Your task to perform on an android device: Search for the top rated book on goodreads. Image 0: 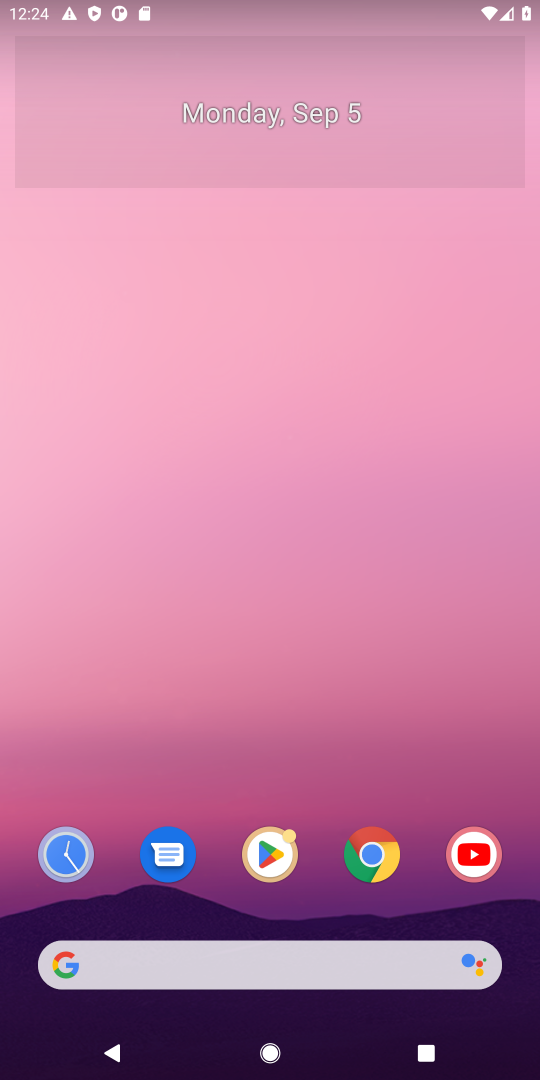
Step 0: click (252, 975)
Your task to perform on an android device: Search for the top rated book on goodreads. Image 1: 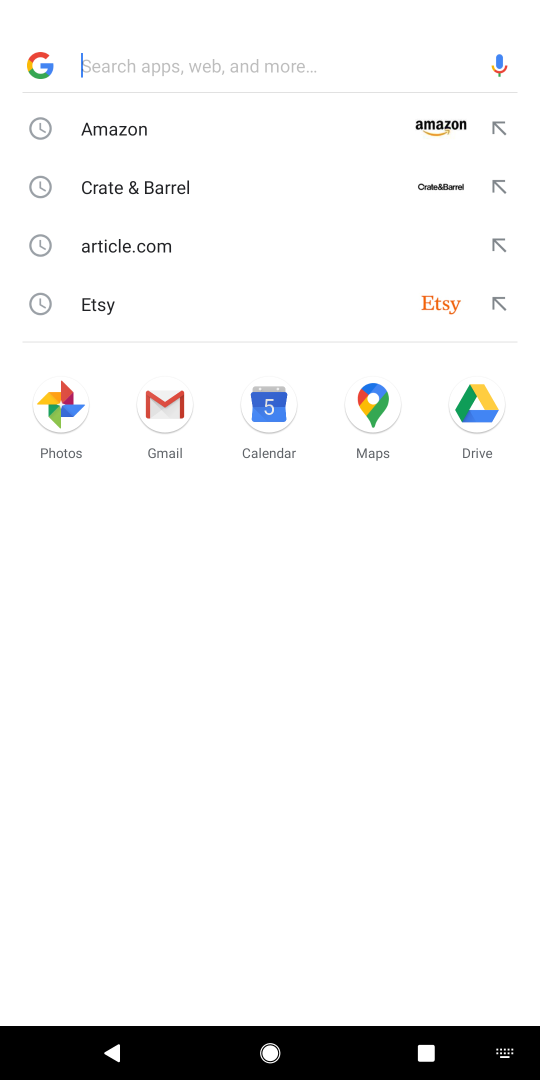
Step 1: type "goodreads"
Your task to perform on an android device: Search for the top rated book on goodreads. Image 2: 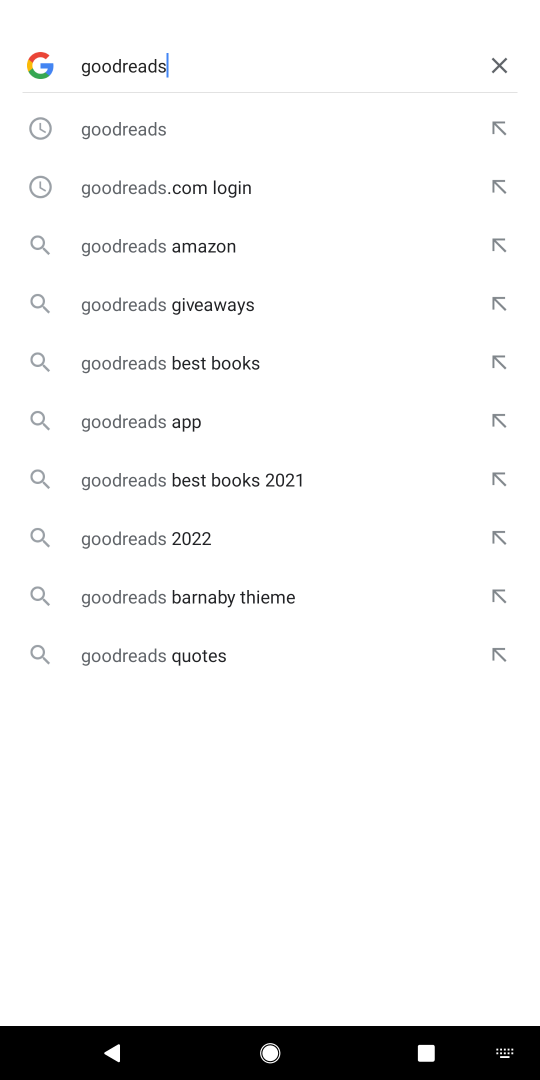
Step 2: press enter
Your task to perform on an android device: Search for the top rated book on goodreads. Image 3: 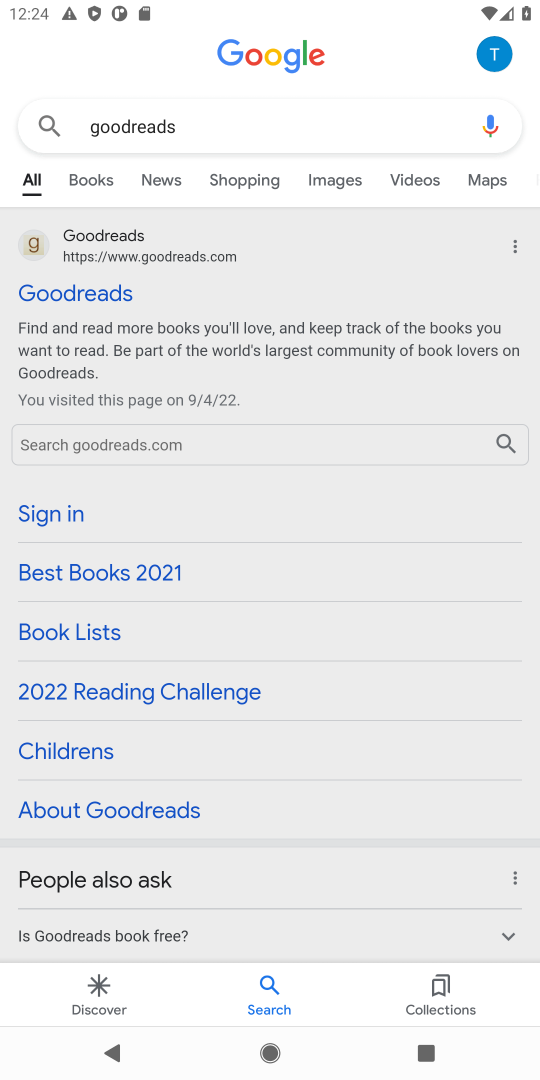
Step 3: click (95, 301)
Your task to perform on an android device: Search for the top rated book on goodreads. Image 4: 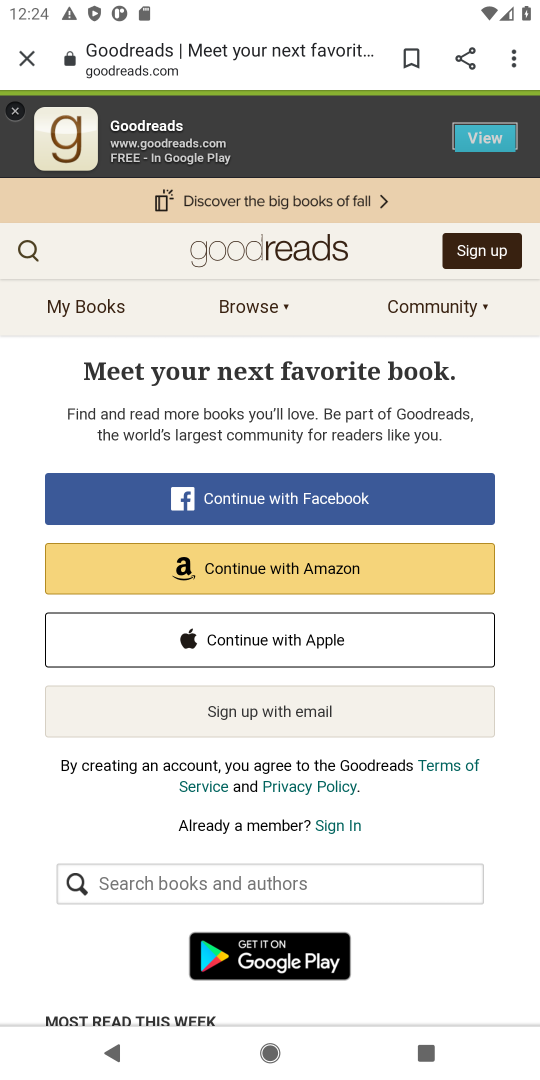
Step 4: click (56, 250)
Your task to perform on an android device: Search for the top rated book on goodreads. Image 5: 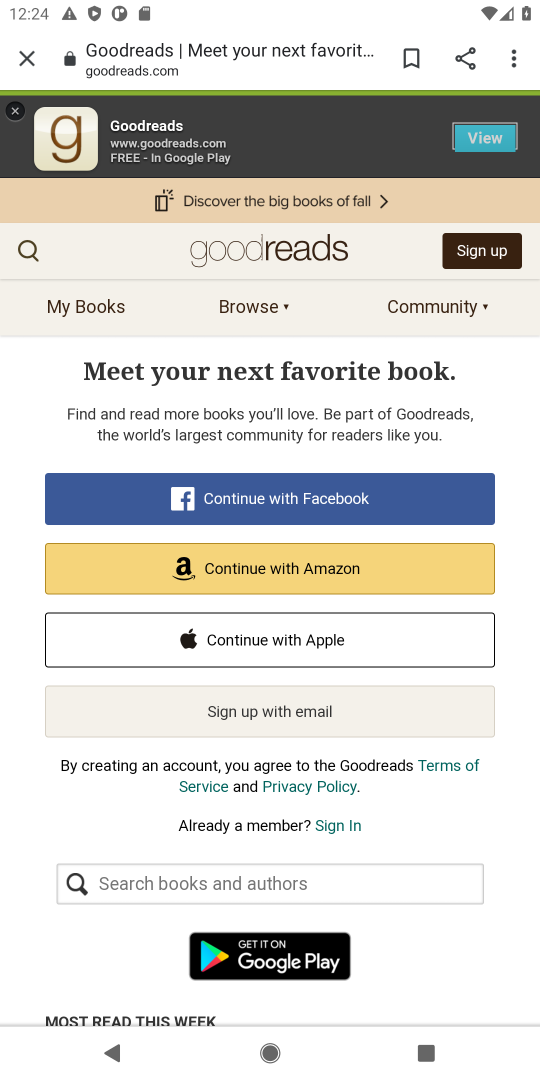
Step 5: click (49, 265)
Your task to perform on an android device: Search for the top rated book on goodreads. Image 6: 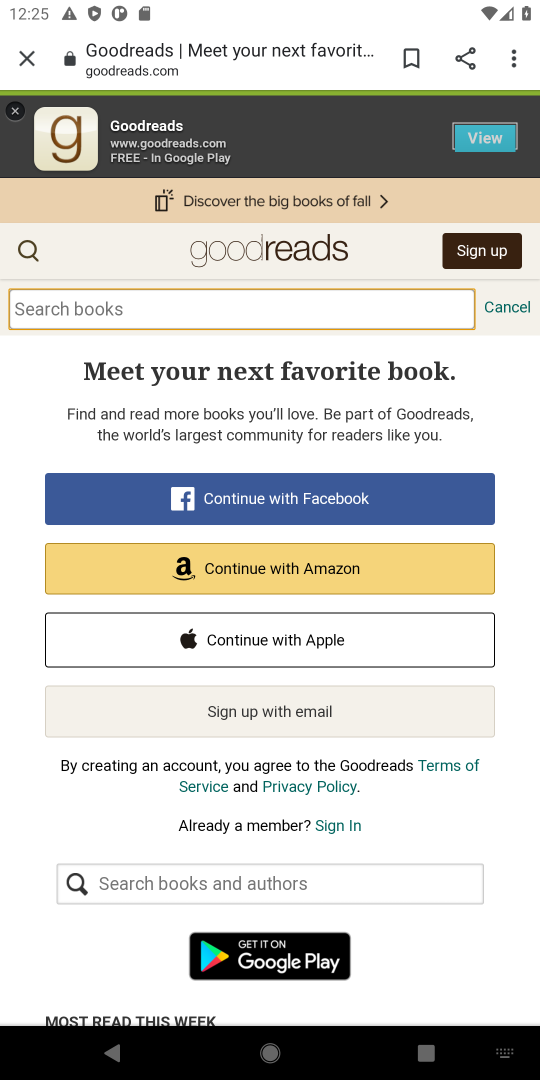
Step 6: press enter
Your task to perform on an android device: Search for the top rated book on goodreads. Image 7: 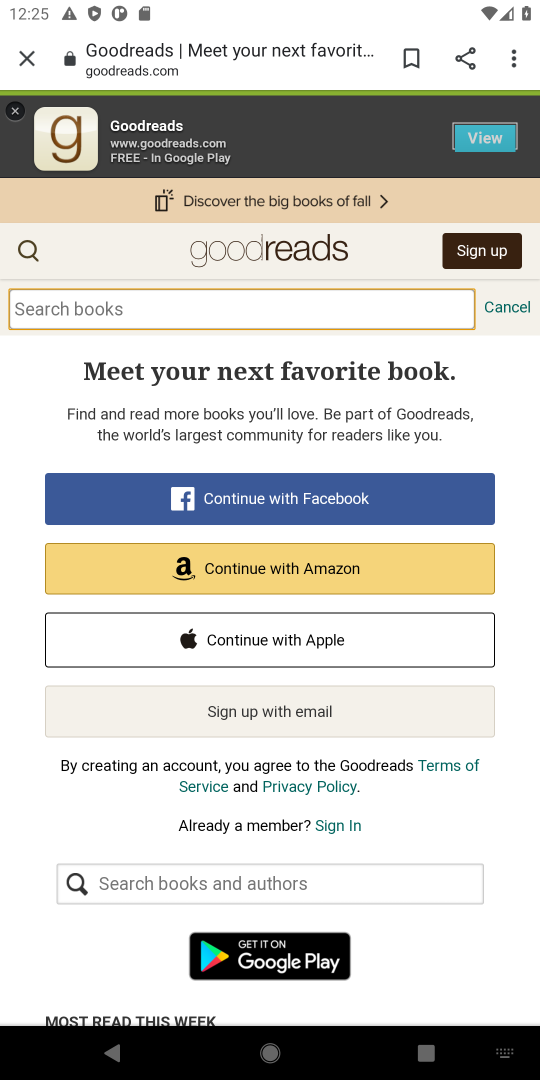
Step 7: type "top rated book"
Your task to perform on an android device: Search for the top rated book on goodreads. Image 8: 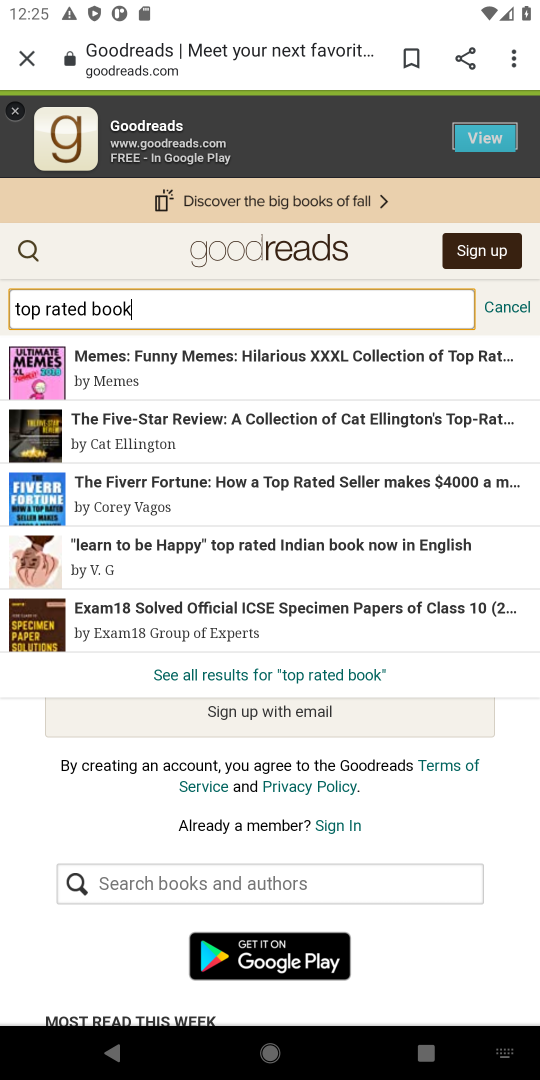
Step 8: task complete